Your task to perform on an android device: Open wifi settings Image 0: 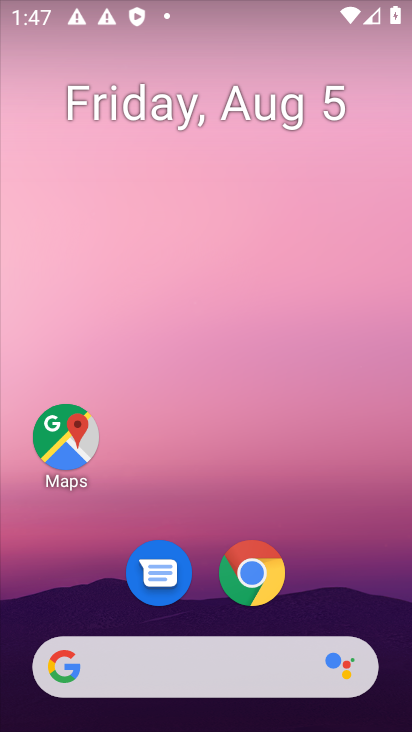
Step 0: press home button
Your task to perform on an android device: Open wifi settings Image 1: 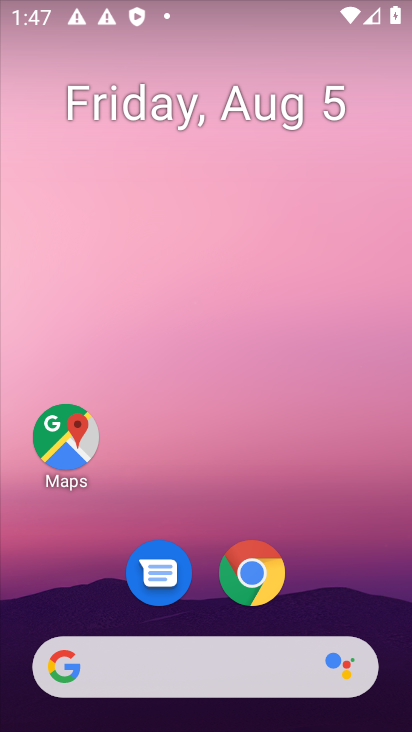
Step 1: drag from (363, 601) to (361, 181)
Your task to perform on an android device: Open wifi settings Image 2: 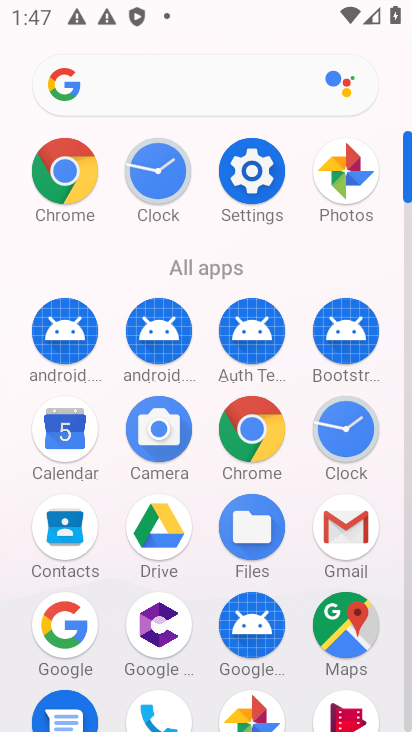
Step 2: click (253, 177)
Your task to perform on an android device: Open wifi settings Image 3: 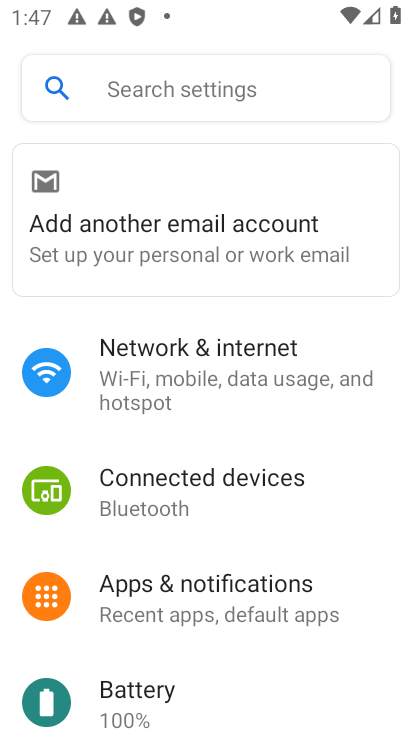
Step 3: drag from (367, 470) to (374, 347)
Your task to perform on an android device: Open wifi settings Image 4: 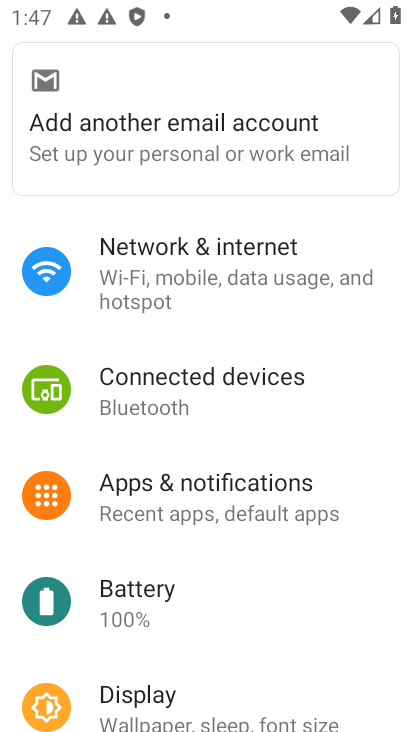
Step 4: drag from (365, 543) to (369, 364)
Your task to perform on an android device: Open wifi settings Image 5: 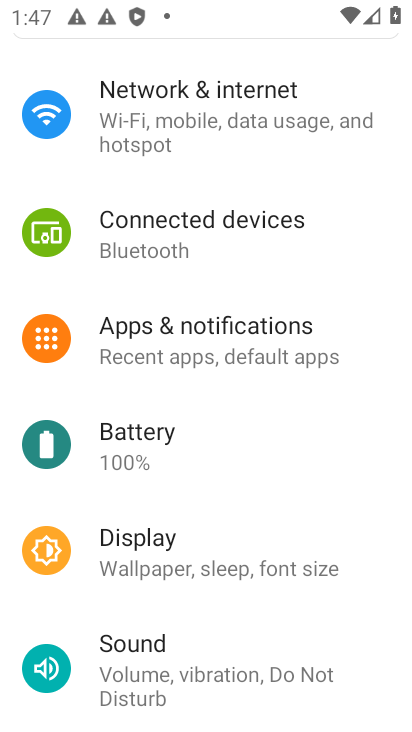
Step 5: drag from (354, 480) to (356, 357)
Your task to perform on an android device: Open wifi settings Image 6: 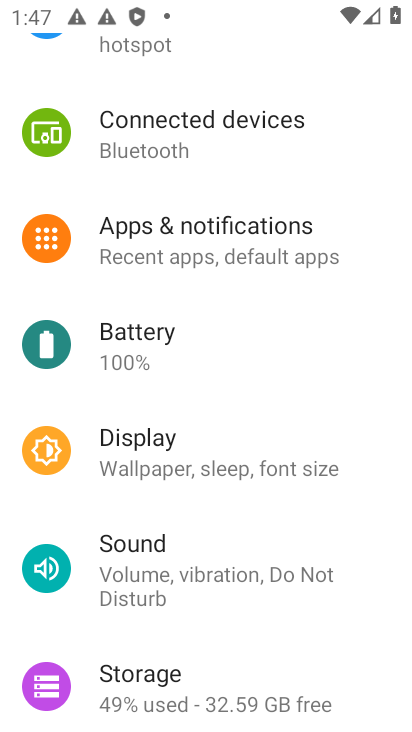
Step 6: drag from (357, 578) to (363, 416)
Your task to perform on an android device: Open wifi settings Image 7: 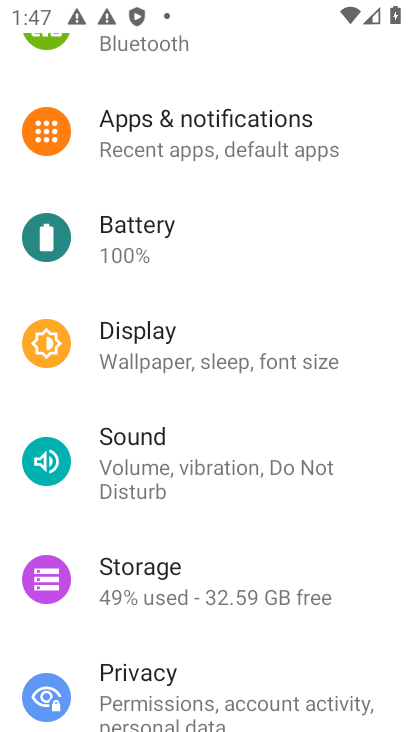
Step 7: drag from (352, 588) to (360, 432)
Your task to perform on an android device: Open wifi settings Image 8: 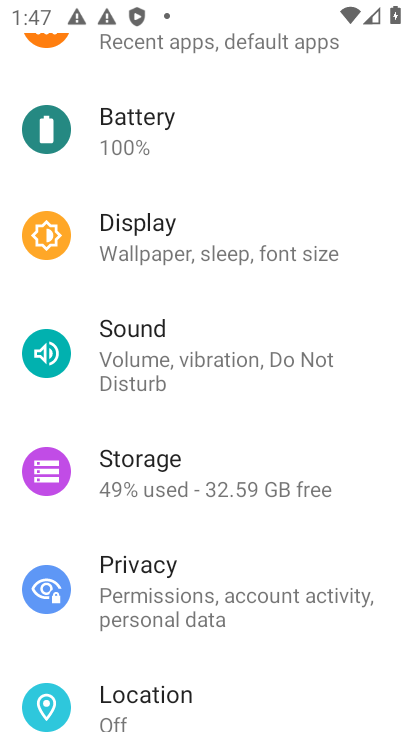
Step 8: drag from (366, 513) to (379, 365)
Your task to perform on an android device: Open wifi settings Image 9: 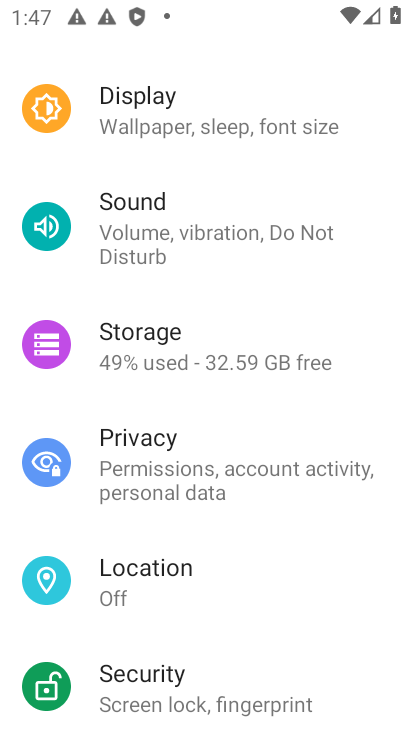
Step 9: drag from (360, 532) to (363, 377)
Your task to perform on an android device: Open wifi settings Image 10: 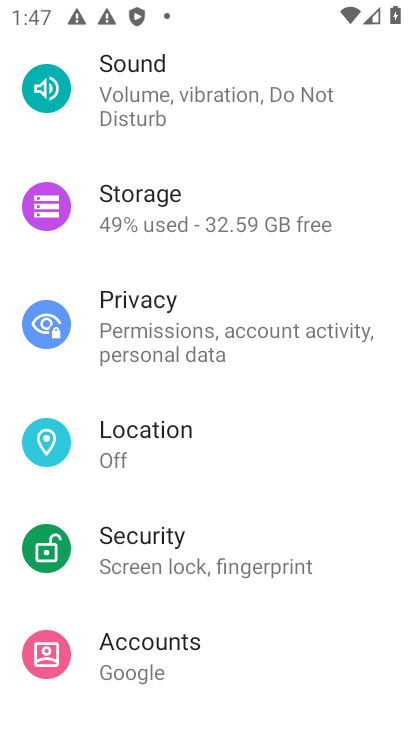
Step 10: drag from (352, 498) to (361, 341)
Your task to perform on an android device: Open wifi settings Image 11: 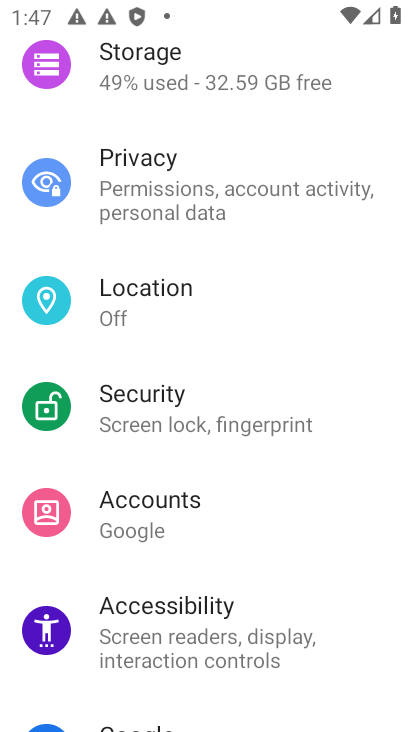
Step 11: drag from (372, 234) to (369, 366)
Your task to perform on an android device: Open wifi settings Image 12: 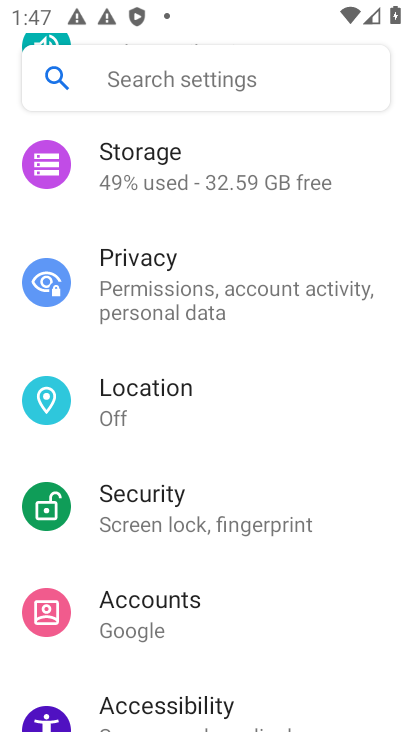
Step 12: drag from (365, 197) to (357, 357)
Your task to perform on an android device: Open wifi settings Image 13: 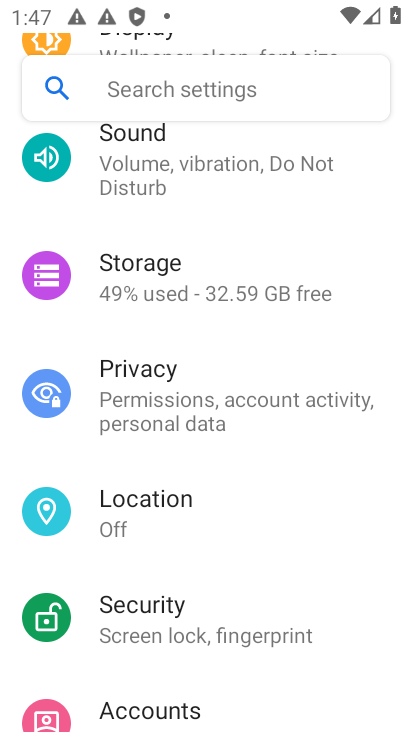
Step 13: drag from (376, 203) to (378, 349)
Your task to perform on an android device: Open wifi settings Image 14: 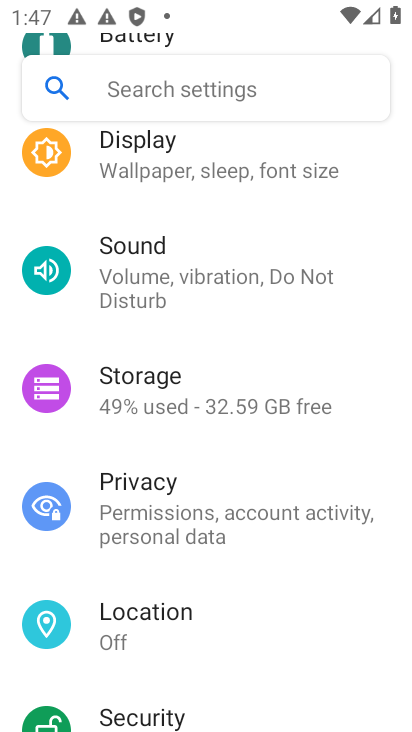
Step 14: drag from (388, 210) to (375, 358)
Your task to perform on an android device: Open wifi settings Image 15: 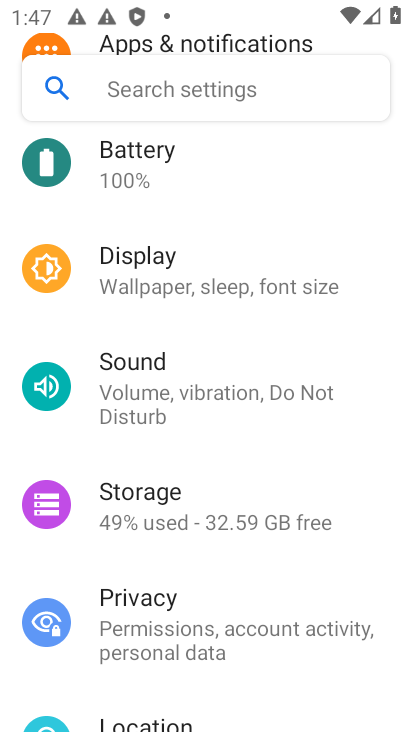
Step 15: drag from (363, 168) to (360, 409)
Your task to perform on an android device: Open wifi settings Image 16: 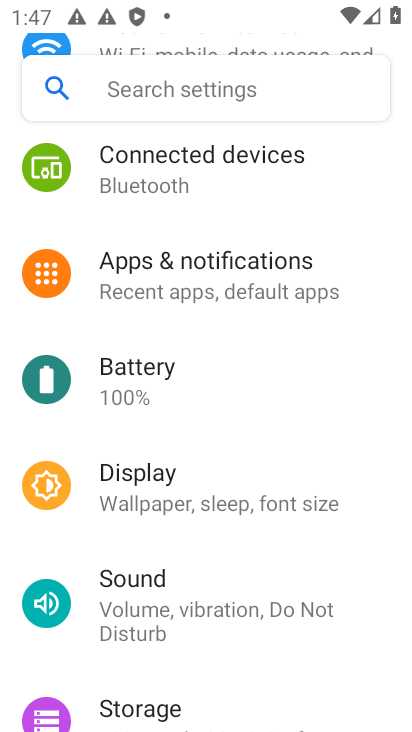
Step 16: drag from (349, 156) to (349, 391)
Your task to perform on an android device: Open wifi settings Image 17: 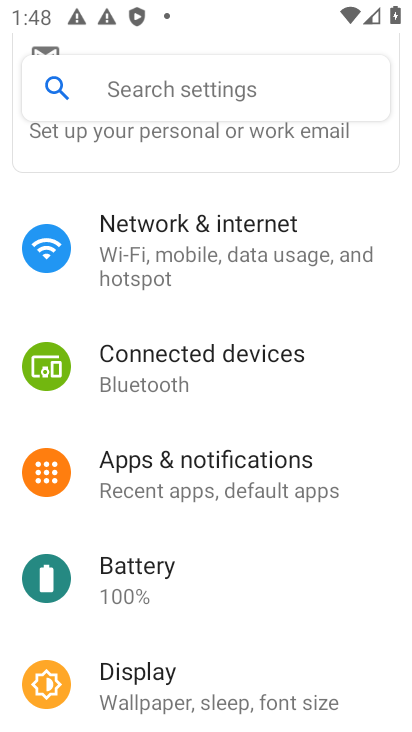
Step 17: drag from (357, 194) to (353, 363)
Your task to perform on an android device: Open wifi settings Image 18: 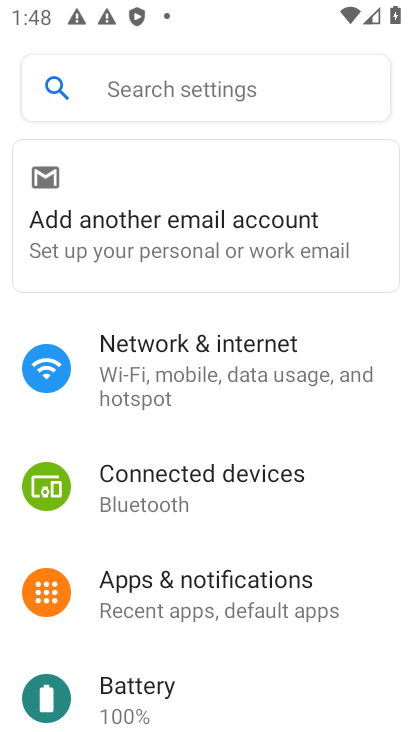
Step 18: click (224, 358)
Your task to perform on an android device: Open wifi settings Image 19: 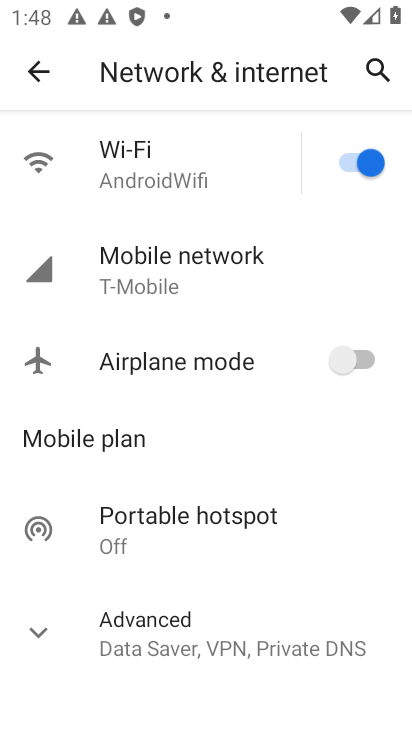
Step 19: click (164, 166)
Your task to perform on an android device: Open wifi settings Image 20: 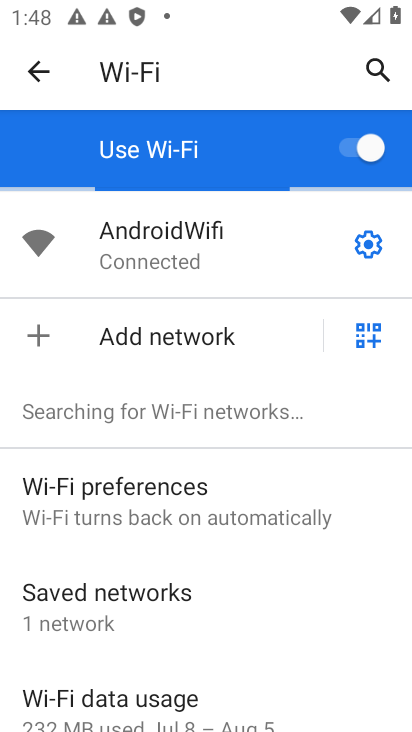
Step 20: task complete